Your task to perform on an android device: Open accessibility settings Image 0: 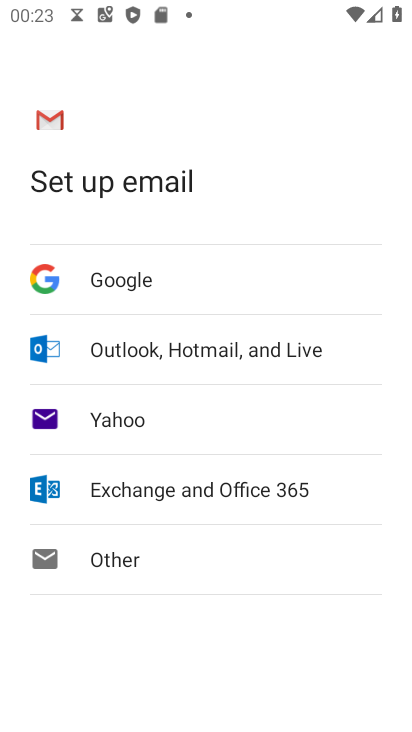
Step 0: press home button
Your task to perform on an android device: Open accessibility settings Image 1: 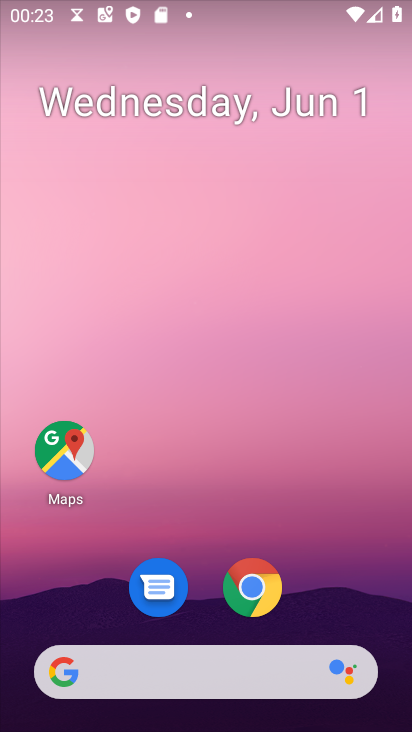
Step 1: drag from (345, 564) to (386, 56)
Your task to perform on an android device: Open accessibility settings Image 2: 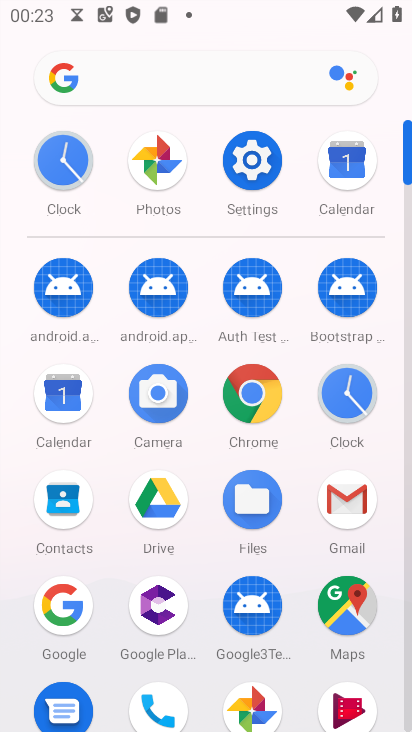
Step 2: click (251, 167)
Your task to perform on an android device: Open accessibility settings Image 3: 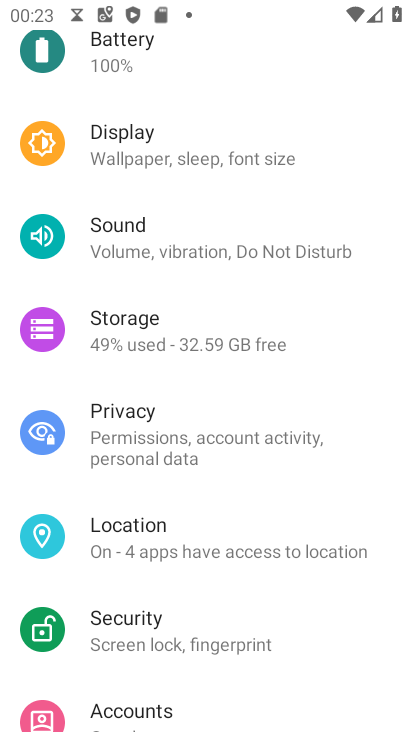
Step 3: drag from (160, 656) to (198, 65)
Your task to perform on an android device: Open accessibility settings Image 4: 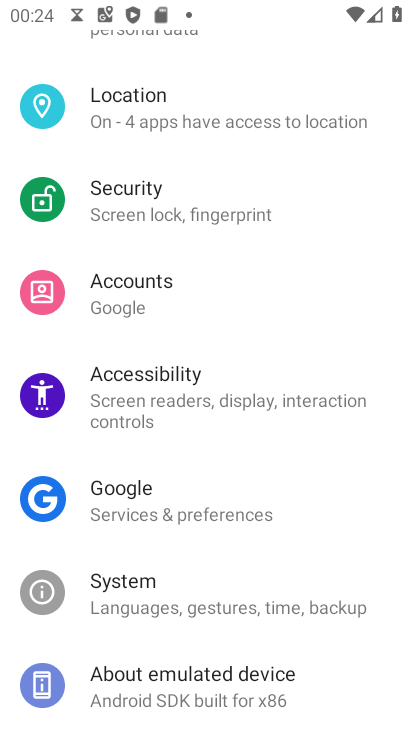
Step 4: click (142, 366)
Your task to perform on an android device: Open accessibility settings Image 5: 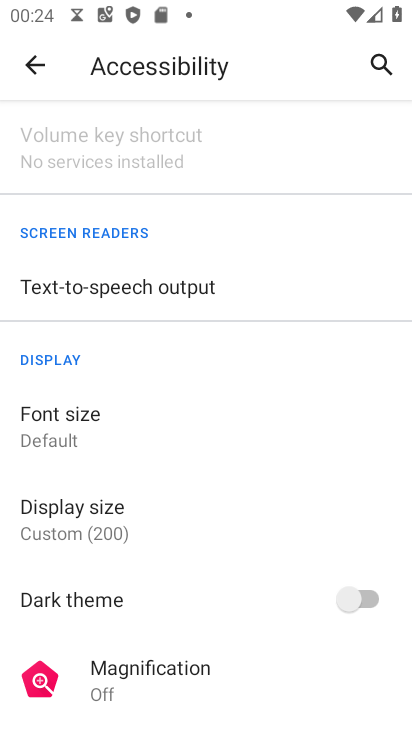
Step 5: task complete